Your task to perform on an android device: Set the phone to "Do not disturb". Image 0: 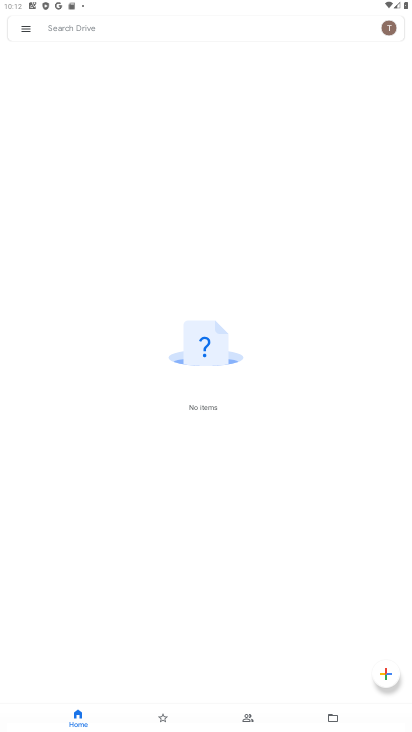
Step 0: press home button
Your task to perform on an android device: Set the phone to "Do not disturb". Image 1: 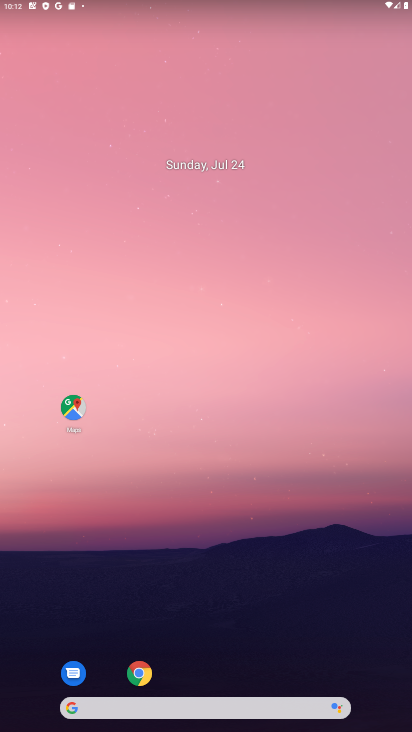
Step 1: drag from (31, 672) to (240, 166)
Your task to perform on an android device: Set the phone to "Do not disturb". Image 2: 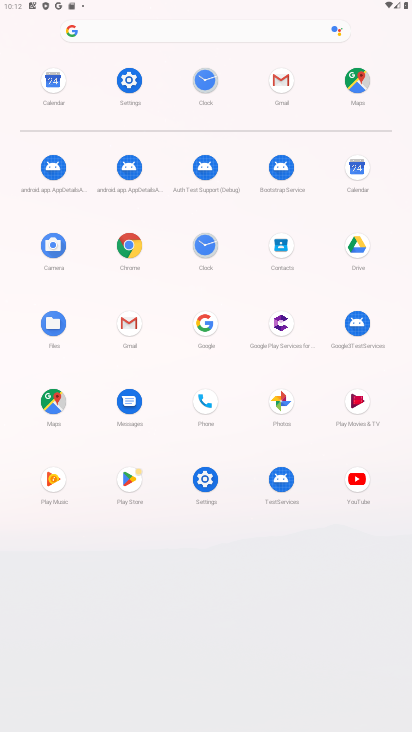
Step 2: click (205, 485)
Your task to perform on an android device: Set the phone to "Do not disturb". Image 3: 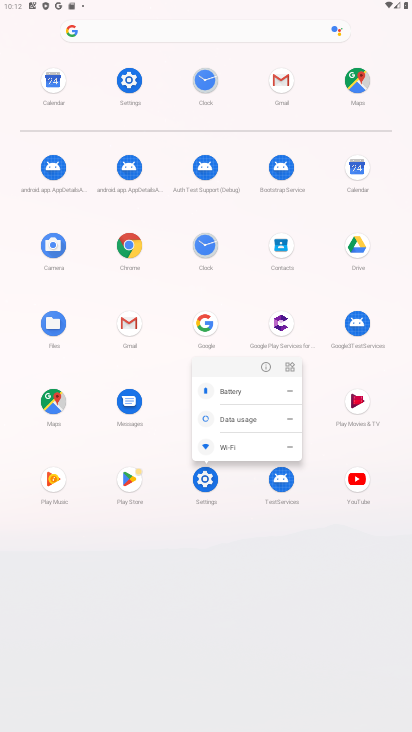
Step 3: click (205, 480)
Your task to perform on an android device: Set the phone to "Do not disturb". Image 4: 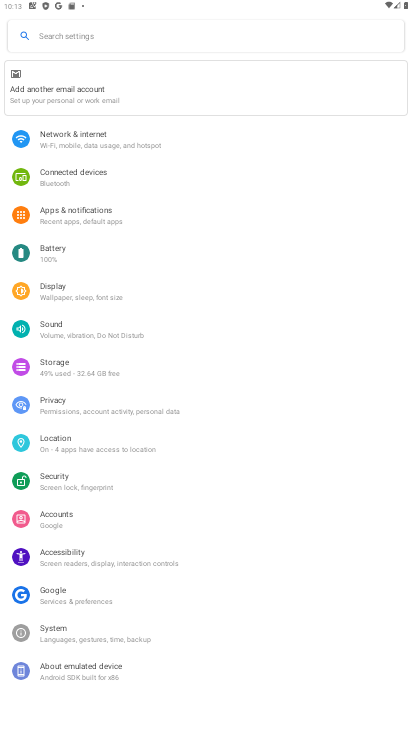
Step 4: click (108, 328)
Your task to perform on an android device: Set the phone to "Do not disturb". Image 5: 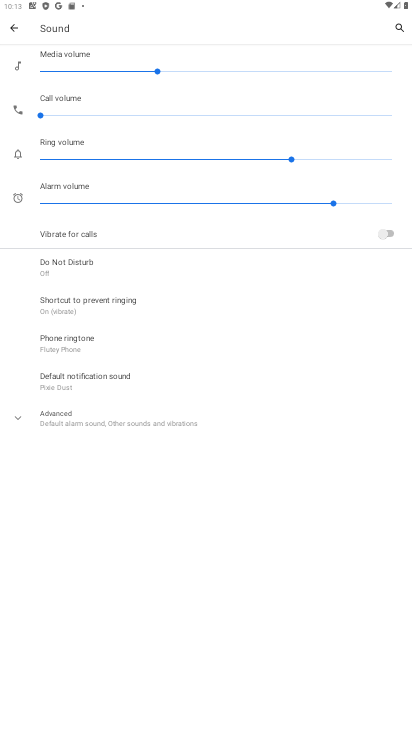
Step 5: click (104, 271)
Your task to perform on an android device: Set the phone to "Do not disturb". Image 6: 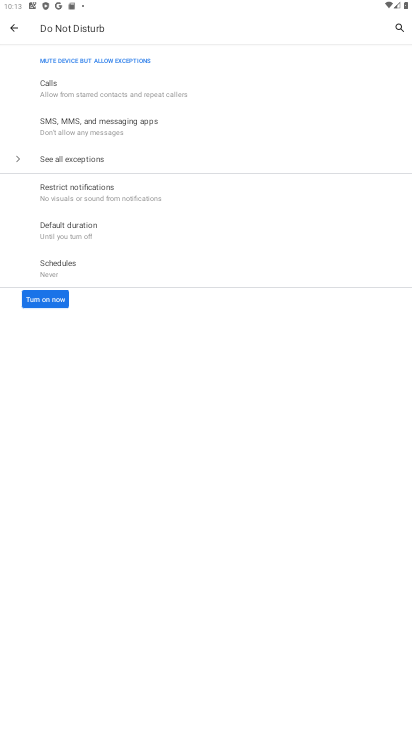
Step 6: task complete